Your task to perform on an android device: toggle notifications settings in the gmail app Image 0: 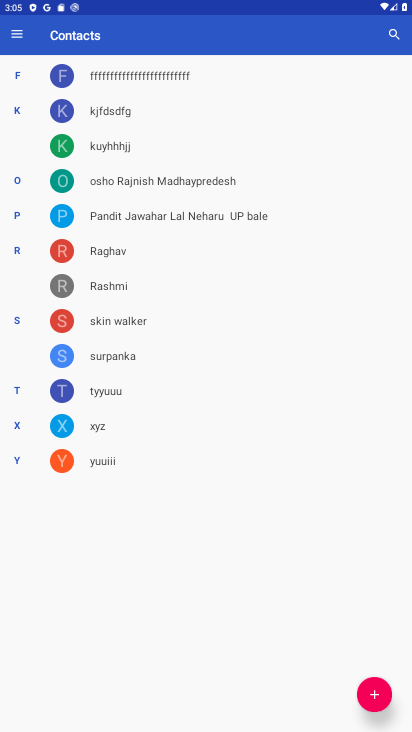
Step 0: press home button
Your task to perform on an android device: toggle notifications settings in the gmail app Image 1: 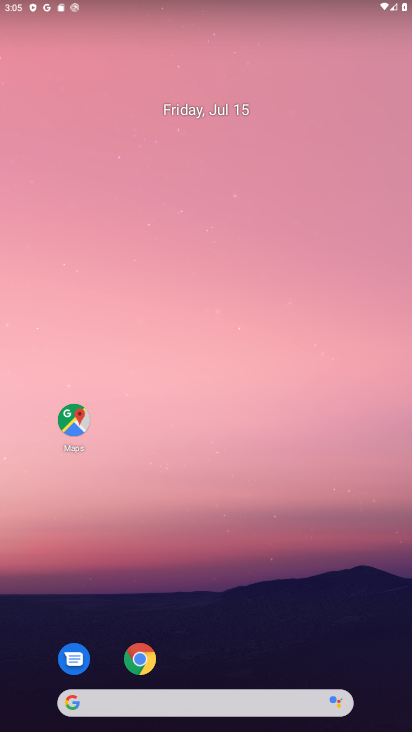
Step 1: drag from (217, 593) to (160, 69)
Your task to perform on an android device: toggle notifications settings in the gmail app Image 2: 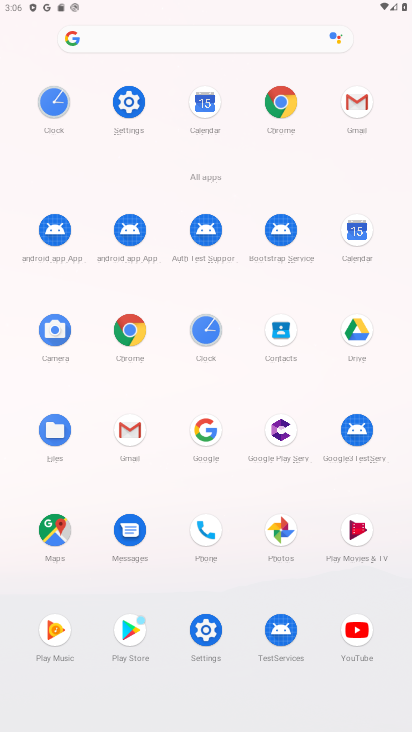
Step 2: click (128, 433)
Your task to perform on an android device: toggle notifications settings in the gmail app Image 3: 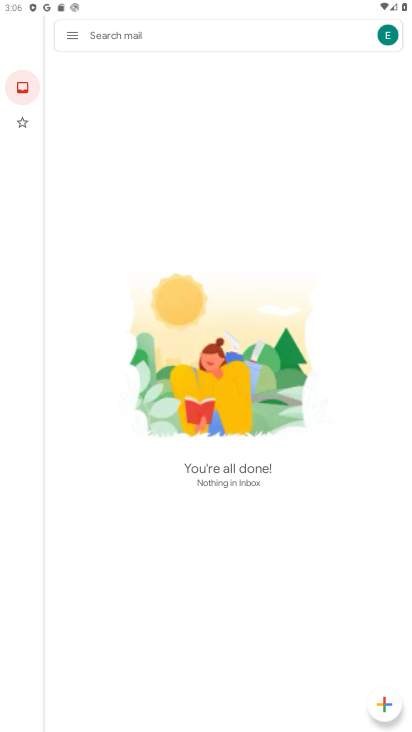
Step 3: click (71, 33)
Your task to perform on an android device: toggle notifications settings in the gmail app Image 4: 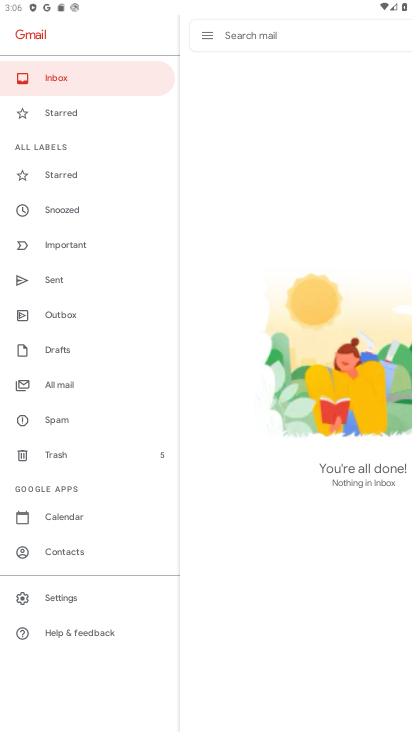
Step 4: click (57, 598)
Your task to perform on an android device: toggle notifications settings in the gmail app Image 5: 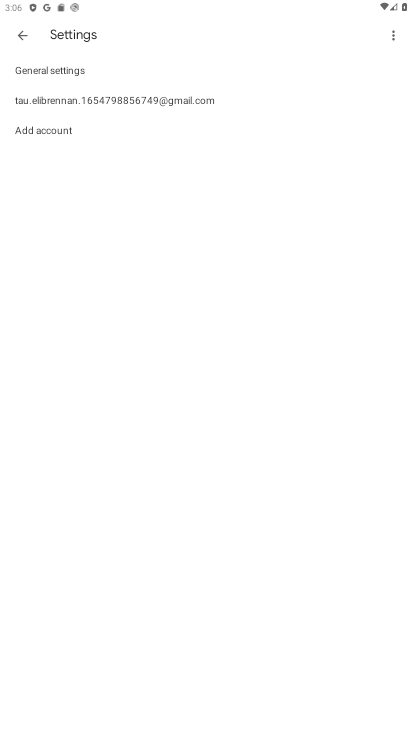
Step 5: click (57, 598)
Your task to perform on an android device: toggle notifications settings in the gmail app Image 6: 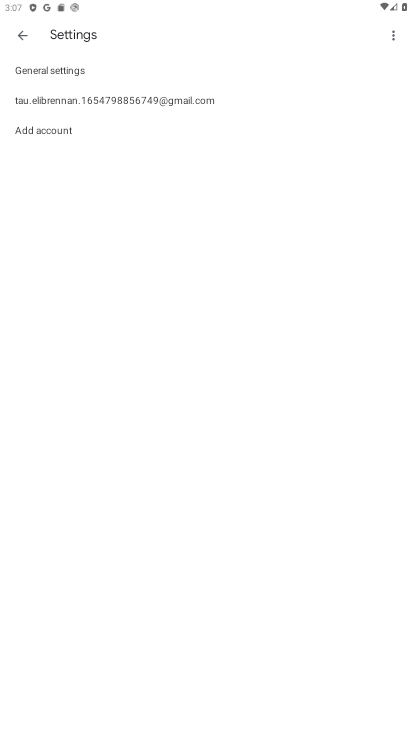
Step 6: click (48, 62)
Your task to perform on an android device: toggle notifications settings in the gmail app Image 7: 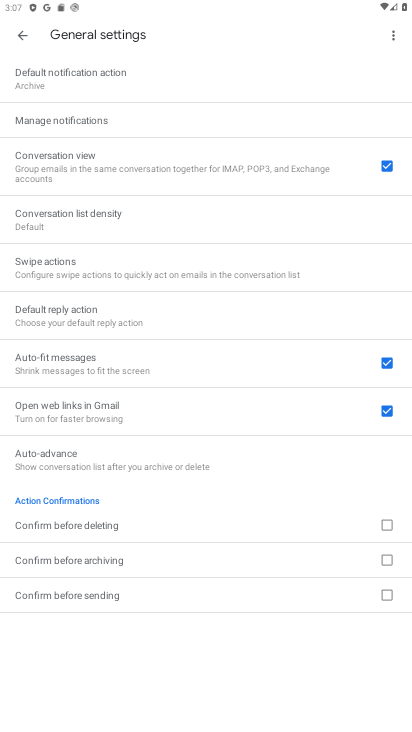
Step 7: click (45, 116)
Your task to perform on an android device: toggle notifications settings in the gmail app Image 8: 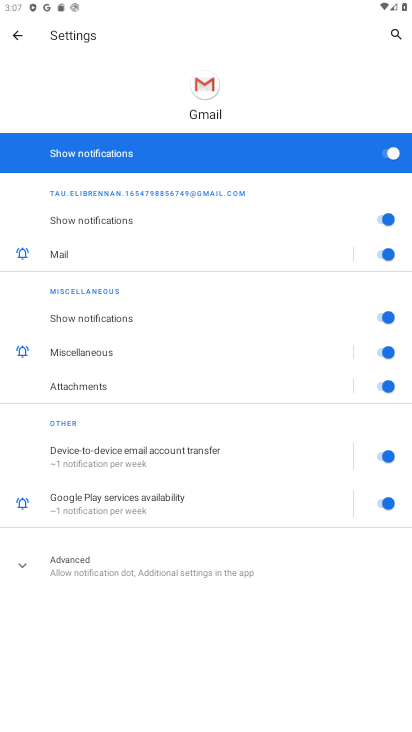
Step 8: click (384, 153)
Your task to perform on an android device: toggle notifications settings in the gmail app Image 9: 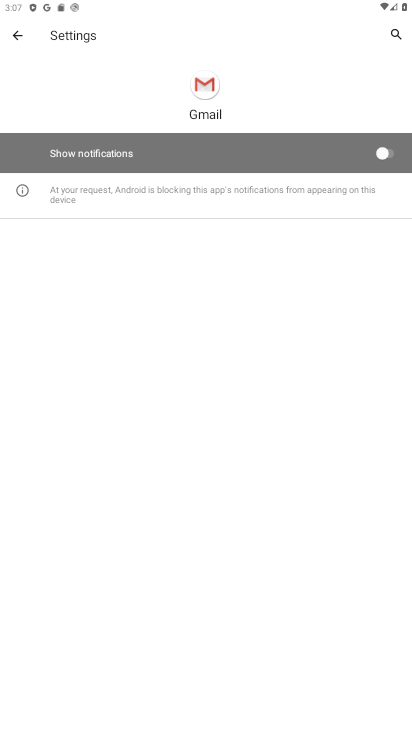
Step 9: task complete